Your task to perform on an android device: toggle show notifications on the lock screen Image 0: 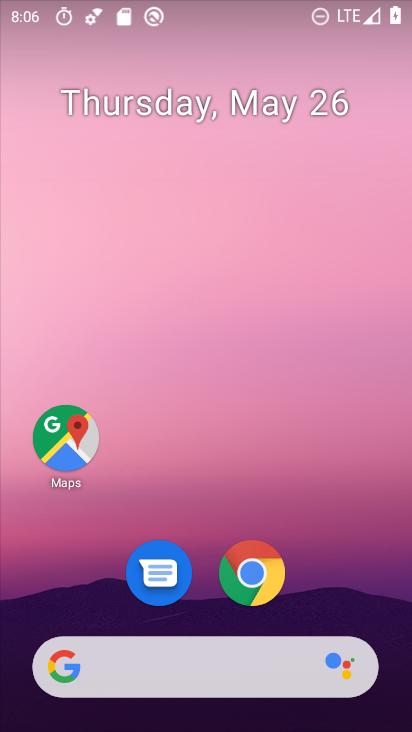
Step 0: drag from (339, 562) to (244, 6)
Your task to perform on an android device: toggle show notifications on the lock screen Image 1: 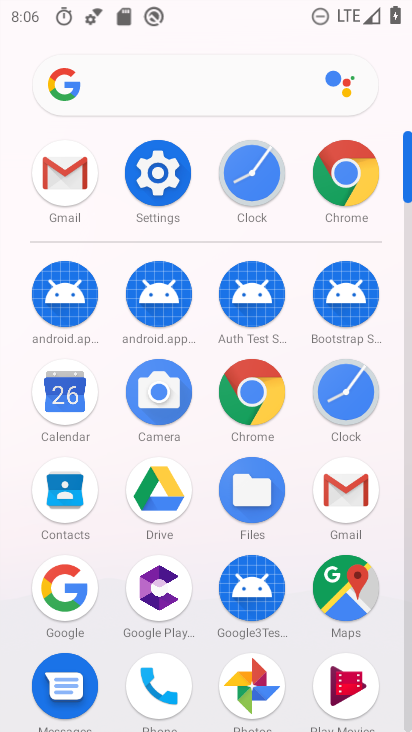
Step 1: drag from (12, 600) to (4, 227)
Your task to perform on an android device: toggle show notifications on the lock screen Image 2: 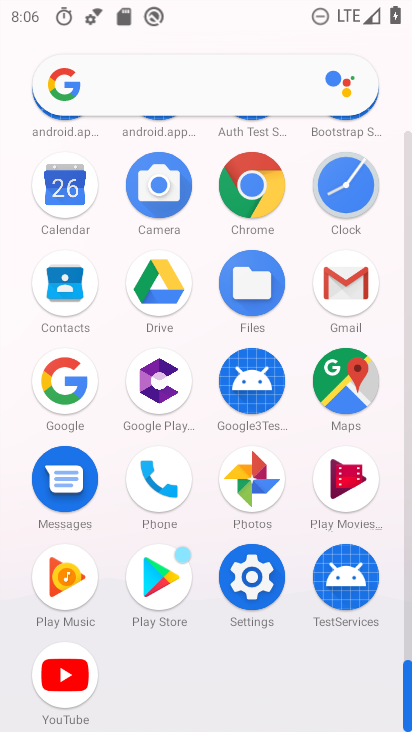
Step 2: drag from (23, 483) to (24, 238)
Your task to perform on an android device: toggle show notifications on the lock screen Image 3: 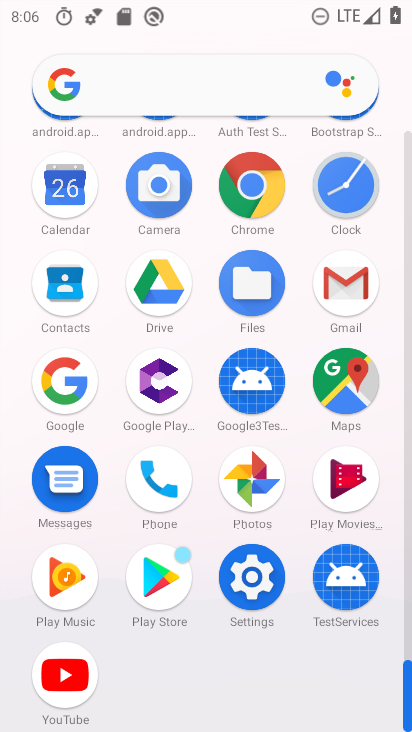
Step 3: click (250, 573)
Your task to perform on an android device: toggle show notifications on the lock screen Image 4: 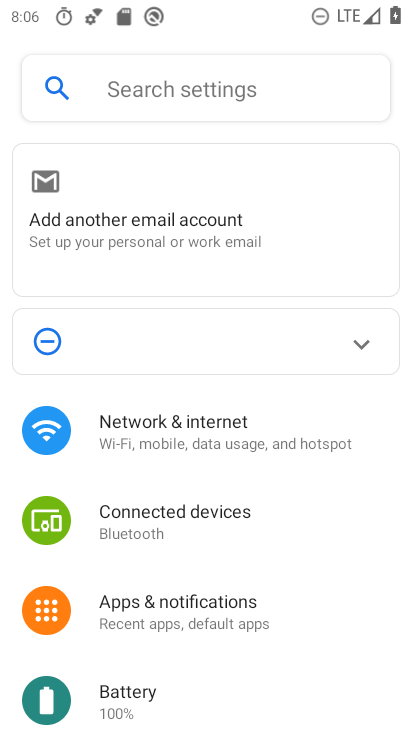
Step 4: click (188, 604)
Your task to perform on an android device: toggle show notifications on the lock screen Image 5: 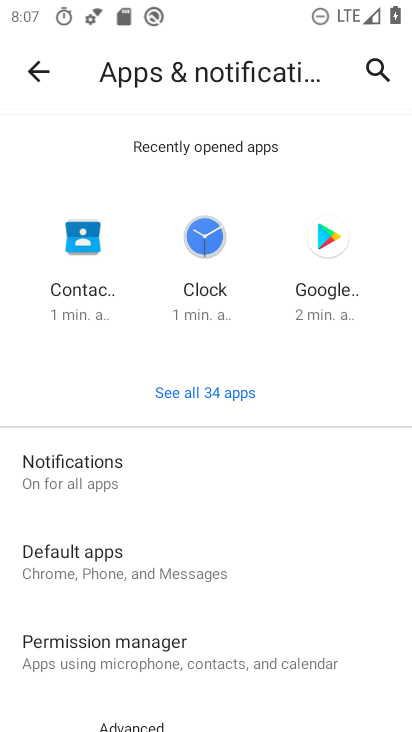
Step 5: click (104, 482)
Your task to perform on an android device: toggle show notifications on the lock screen Image 6: 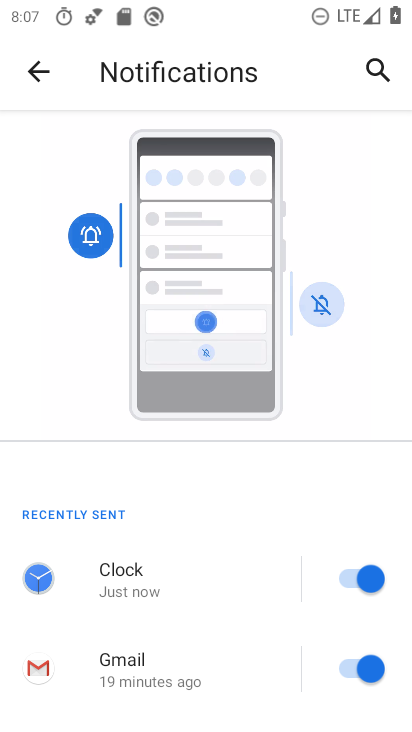
Step 6: drag from (233, 600) to (232, 171)
Your task to perform on an android device: toggle show notifications on the lock screen Image 7: 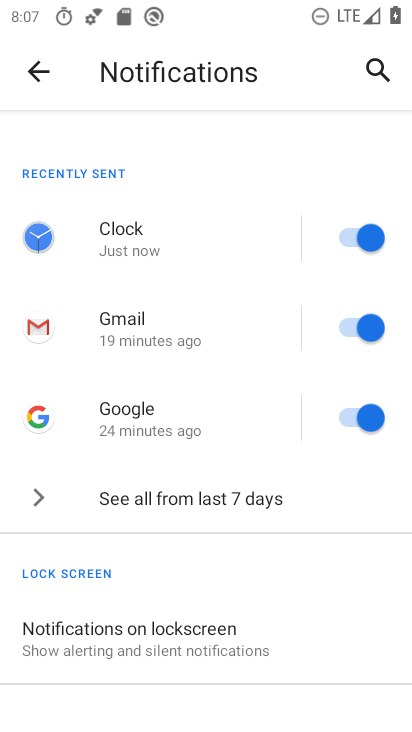
Step 7: click (157, 642)
Your task to perform on an android device: toggle show notifications on the lock screen Image 8: 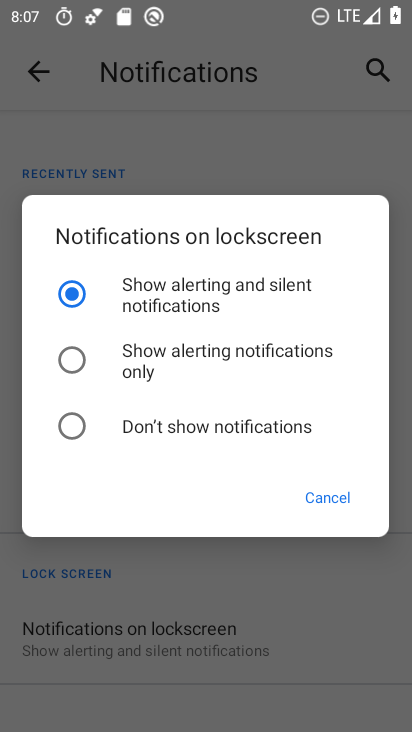
Step 8: click (166, 293)
Your task to perform on an android device: toggle show notifications on the lock screen Image 9: 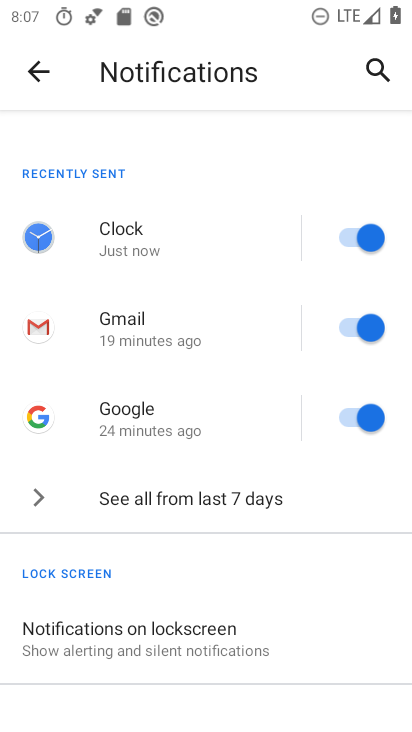
Step 9: task complete